Your task to perform on an android device: toggle notification dots Image 0: 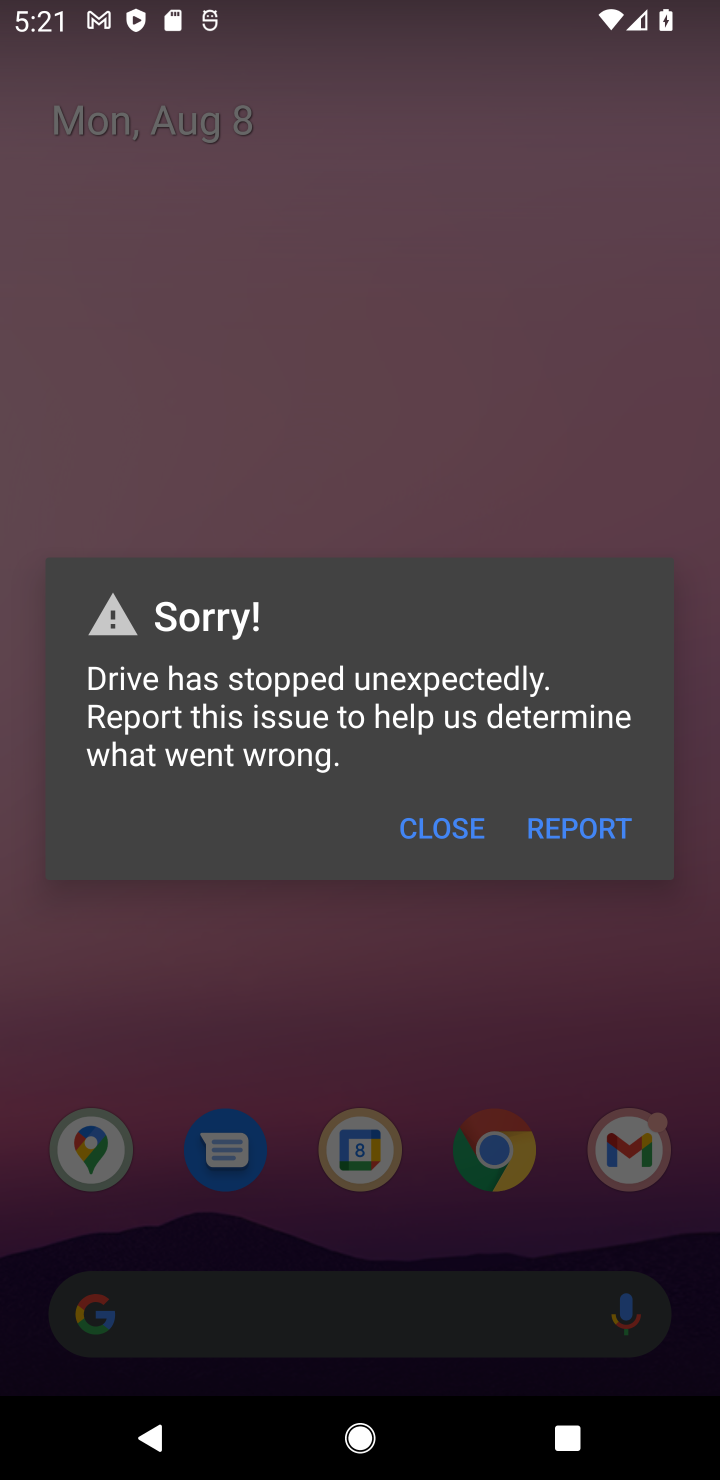
Step 0: click (412, 859)
Your task to perform on an android device: toggle notification dots Image 1: 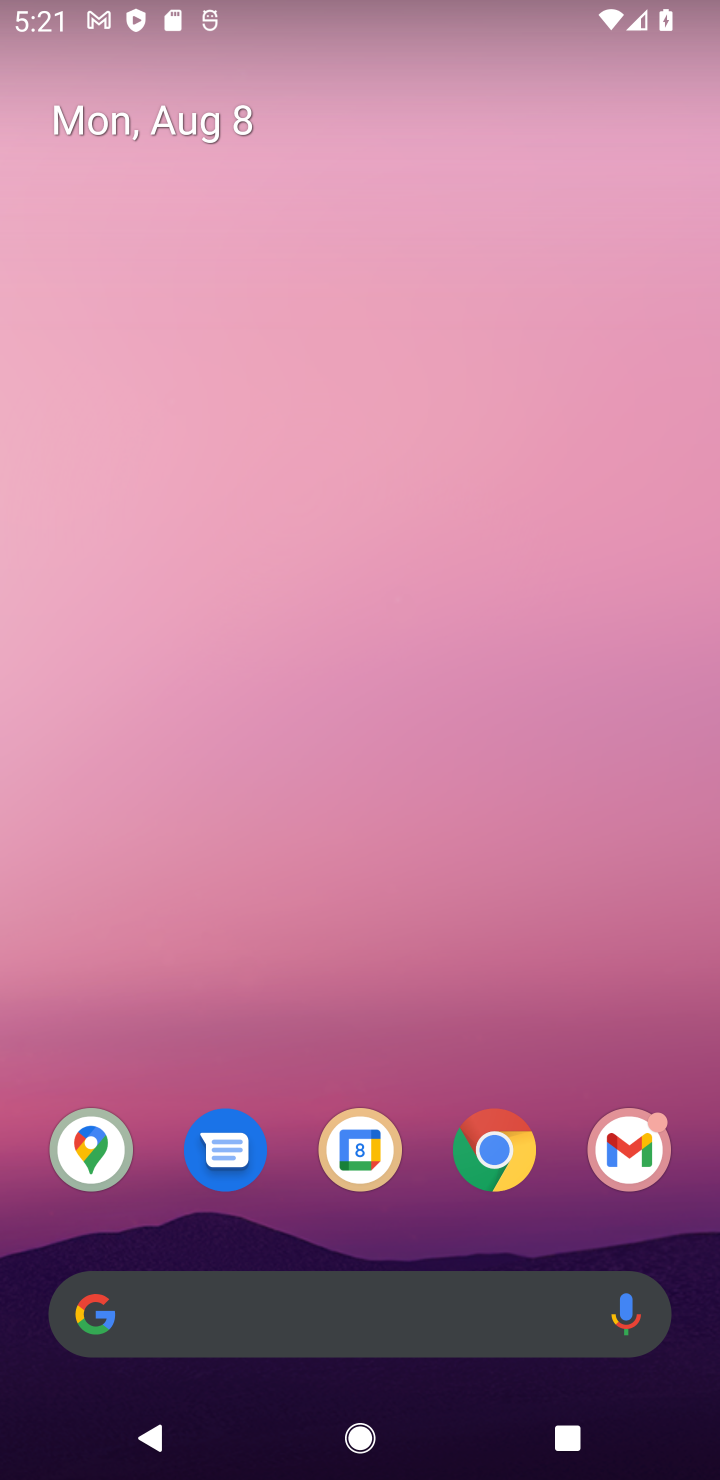
Step 1: drag from (426, 1240) to (389, 194)
Your task to perform on an android device: toggle notification dots Image 2: 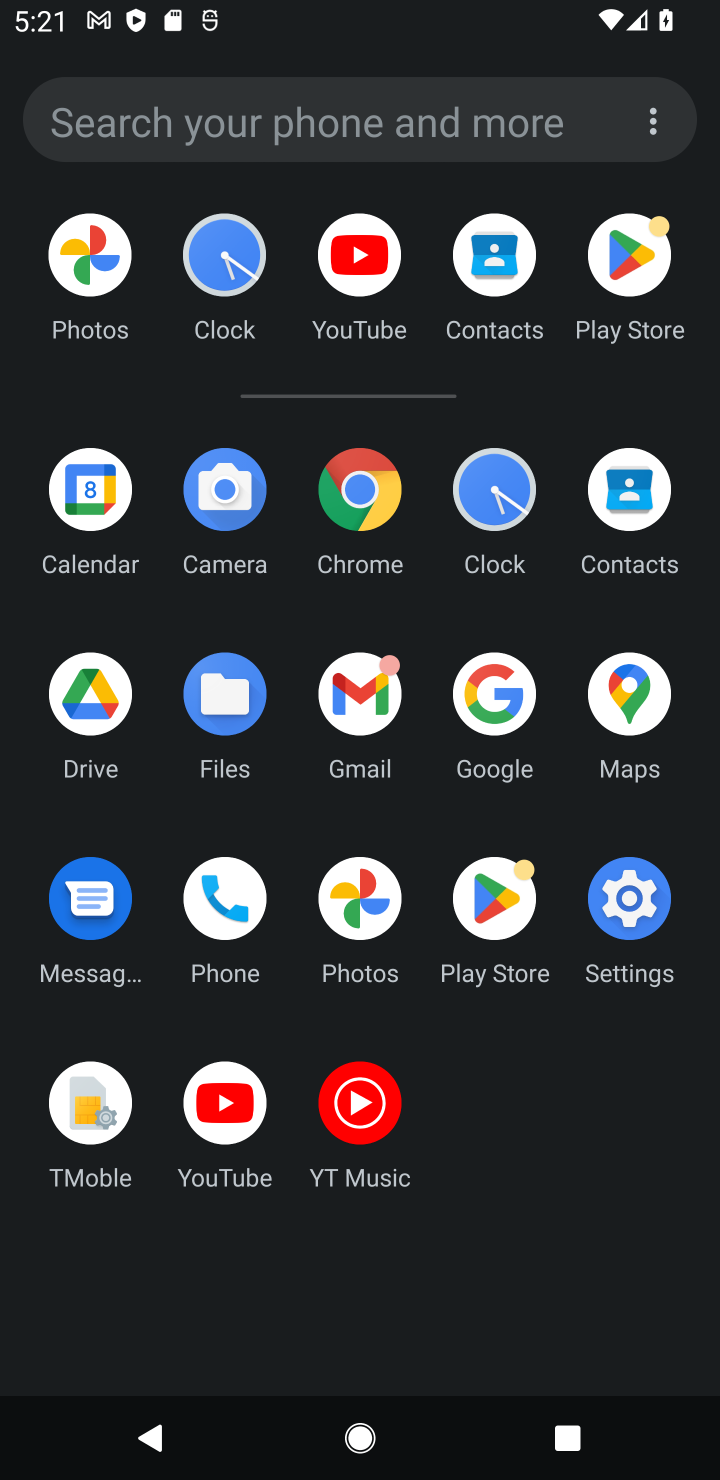
Step 2: click (611, 884)
Your task to perform on an android device: toggle notification dots Image 3: 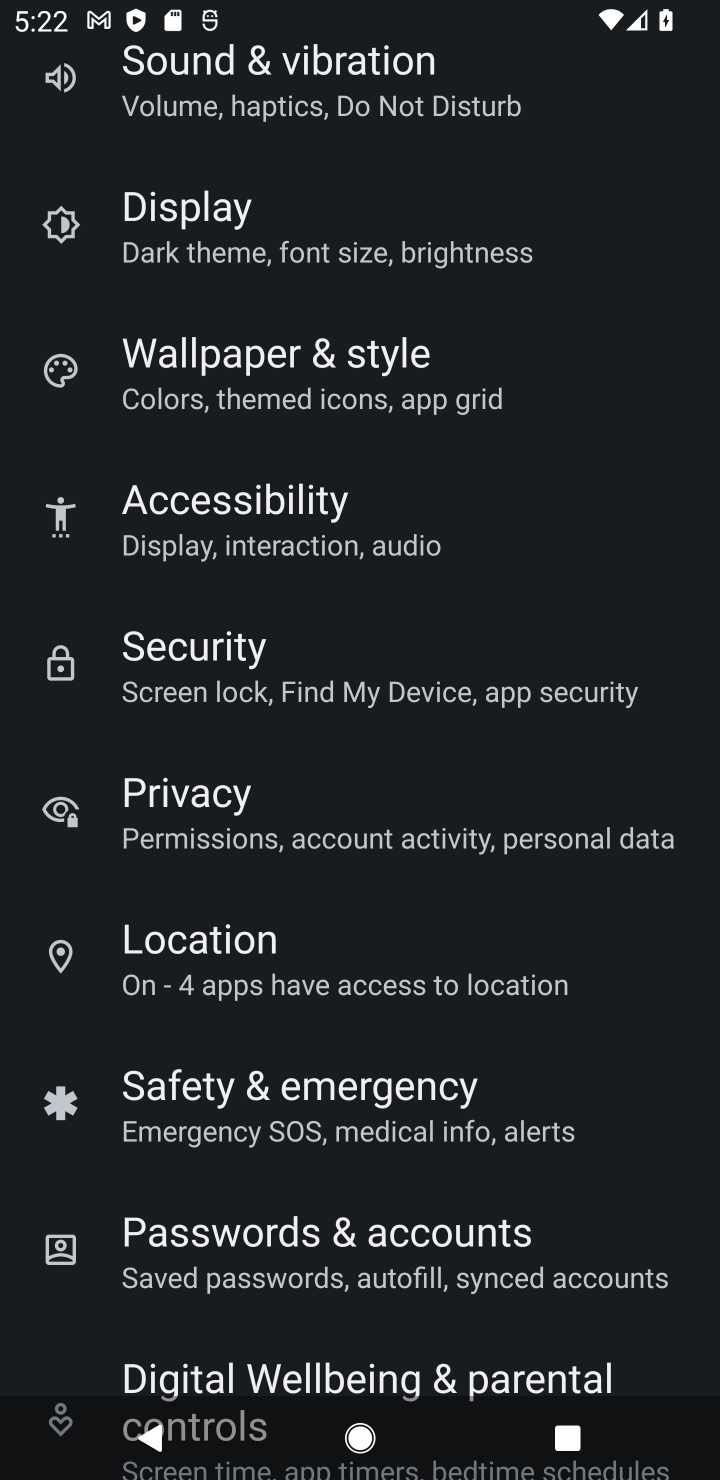
Step 3: drag from (353, 1065) to (465, 1455)
Your task to perform on an android device: toggle notification dots Image 4: 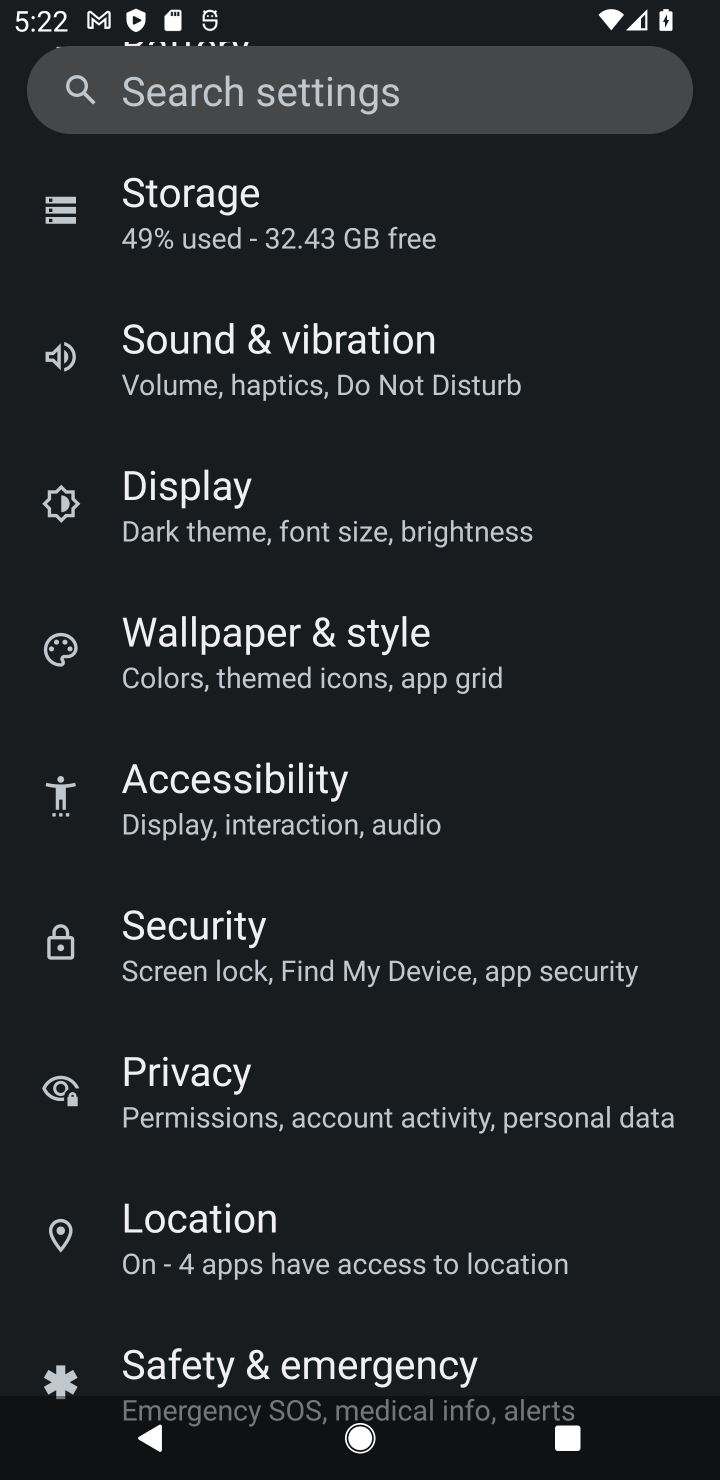
Step 4: drag from (326, 399) to (486, 1369)
Your task to perform on an android device: toggle notification dots Image 5: 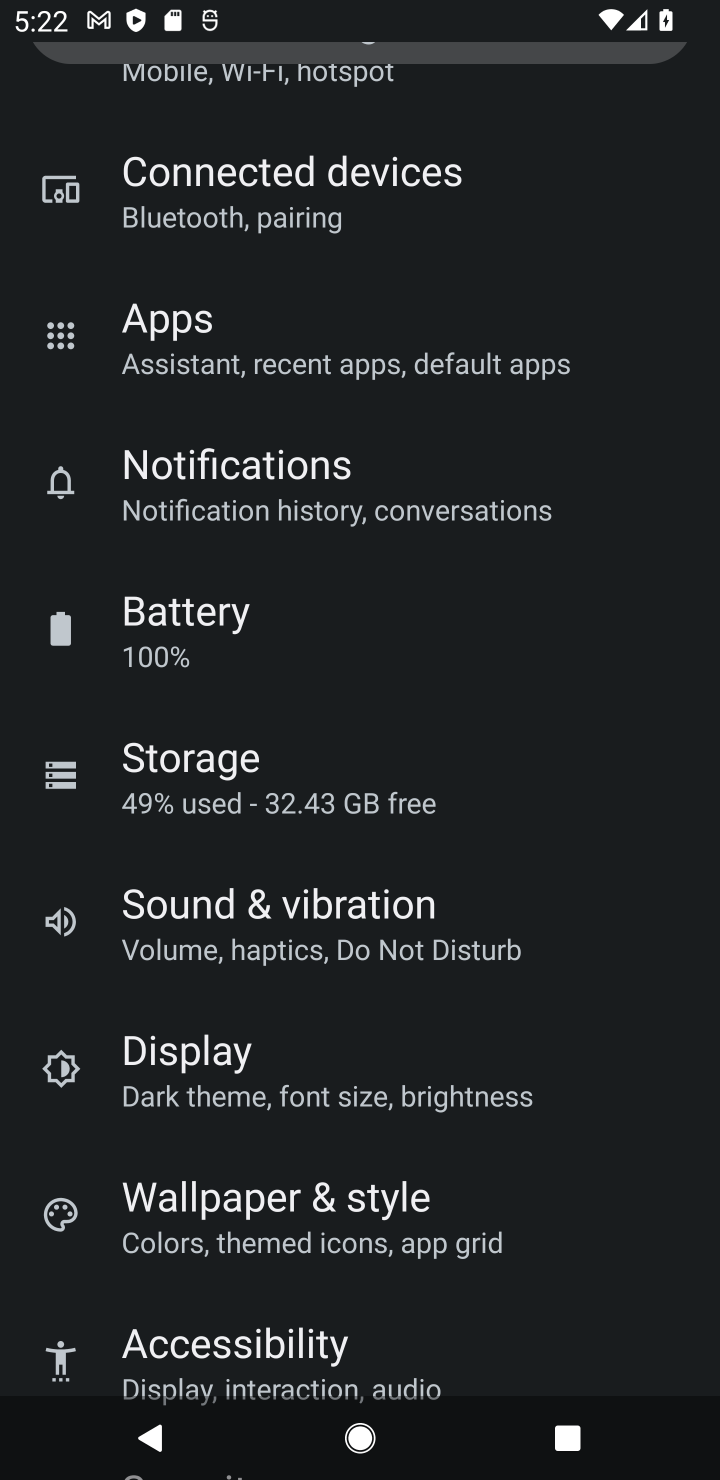
Step 5: click (481, 597)
Your task to perform on an android device: toggle notification dots Image 6: 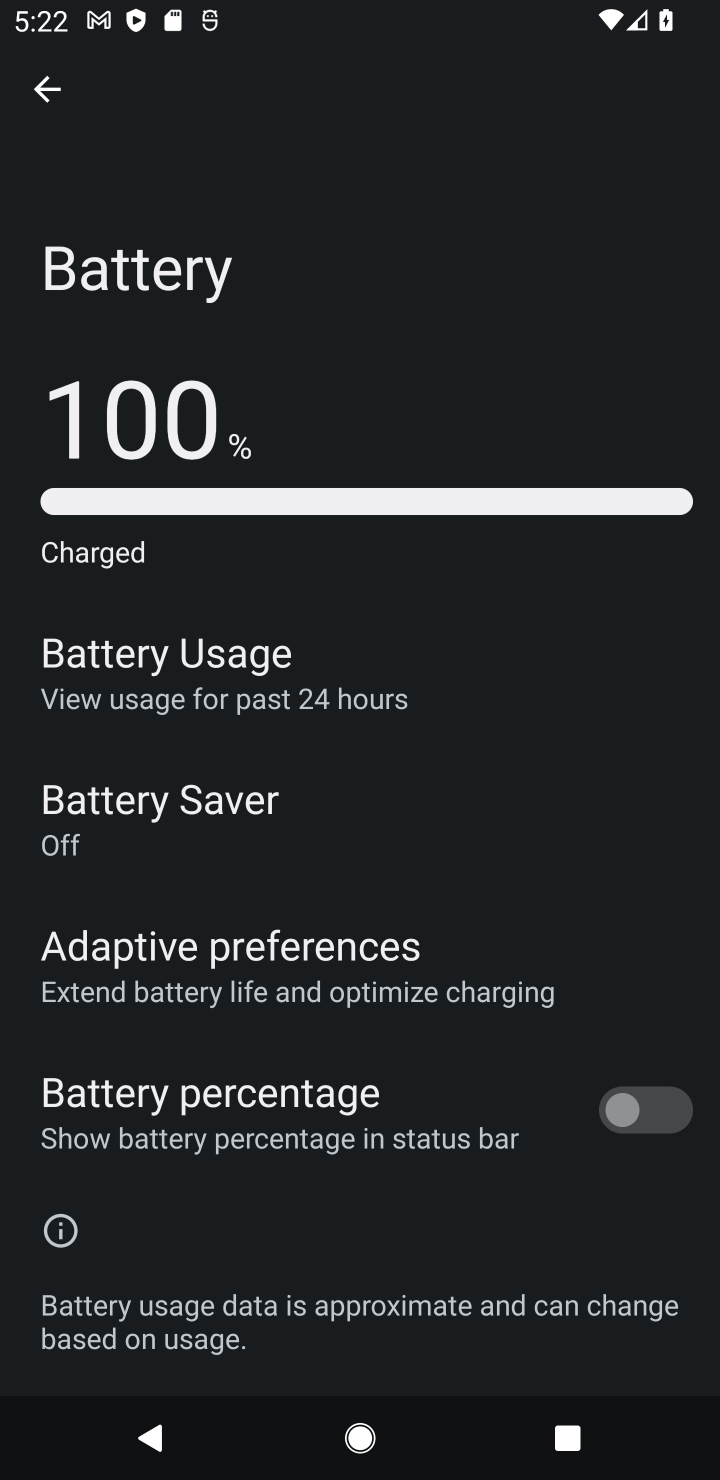
Step 6: click (55, 71)
Your task to perform on an android device: toggle notification dots Image 7: 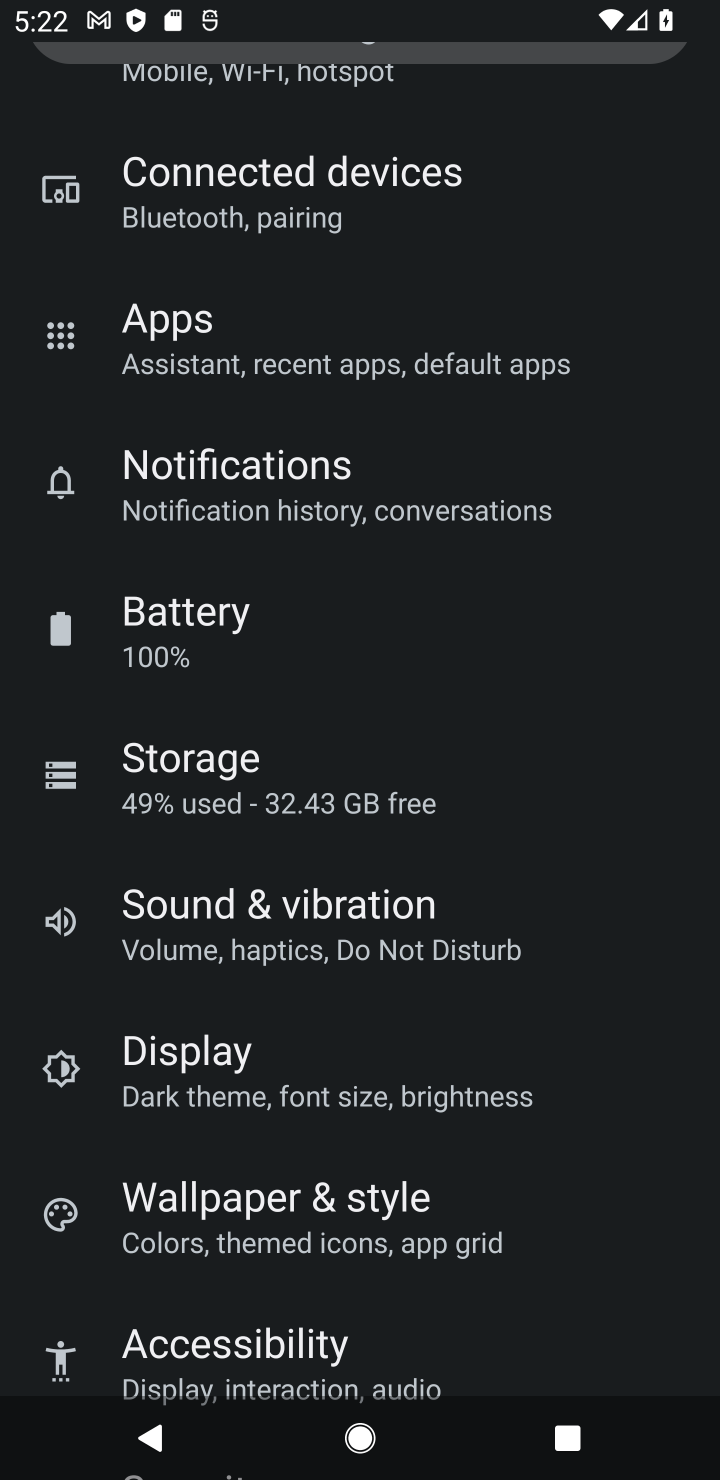
Step 7: click (251, 436)
Your task to perform on an android device: toggle notification dots Image 8: 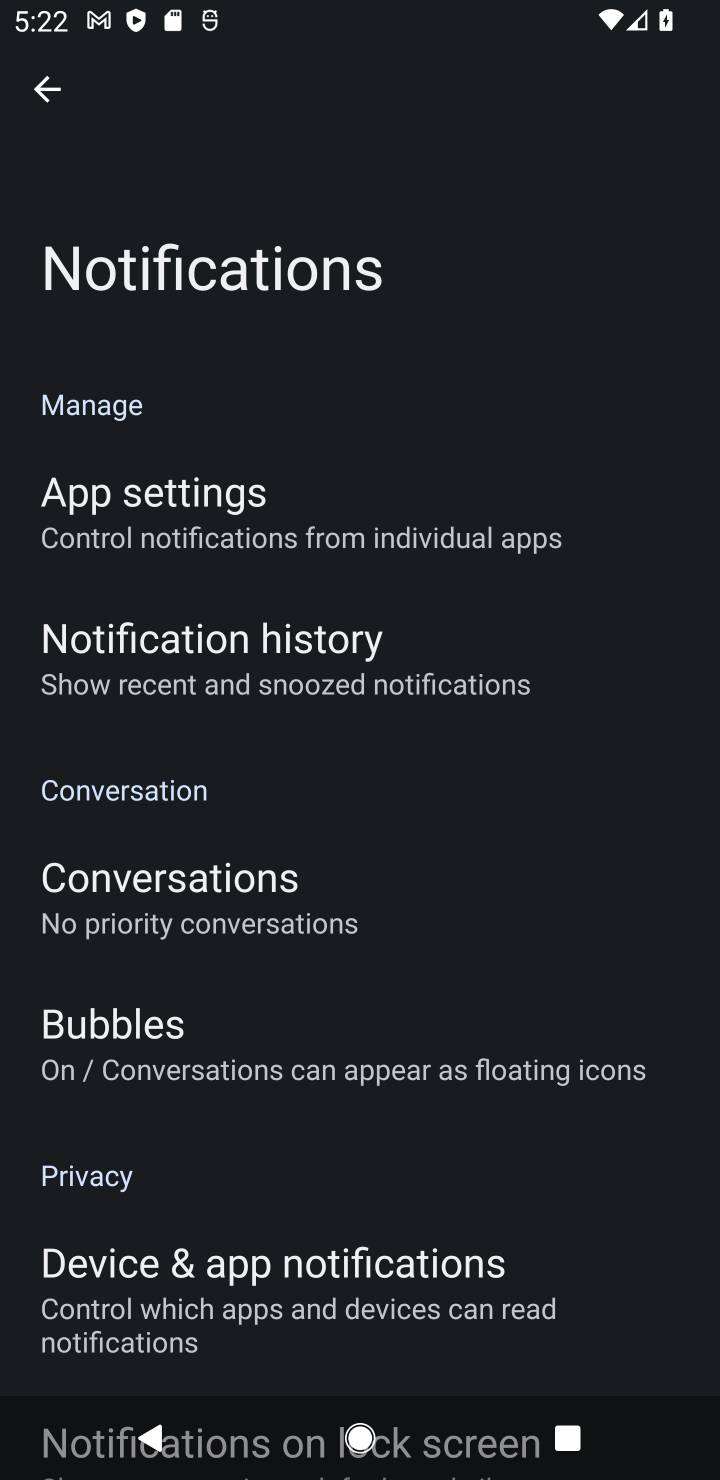
Step 8: task complete